Your task to perform on an android device: turn on notifications settings in the gmail app Image 0: 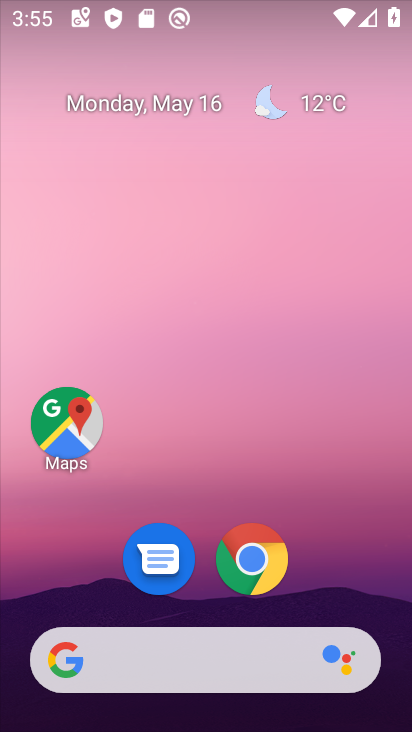
Step 0: drag from (395, 571) to (392, 347)
Your task to perform on an android device: turn on notifications settings in the gmail app Image 1: 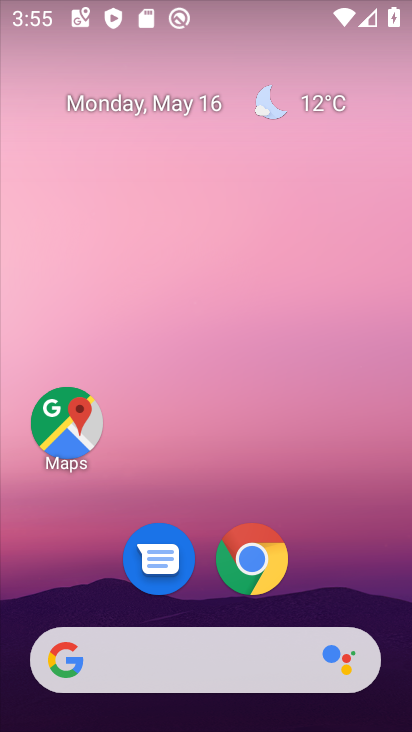
Step 1: drag from (345, 582) to (340, 275)
Your task to perform on an android device: turn on notifications settings in the gmail app Image 2: 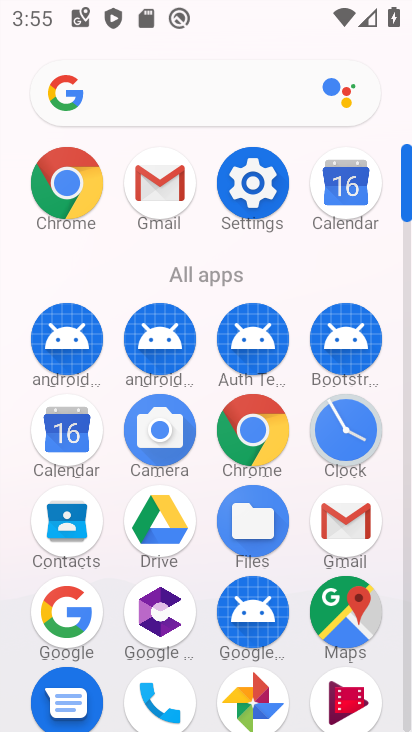
Step 2: click (241, 198)
Your task to perform on an android device: turn on notifications settings in the gmail app Image 3: 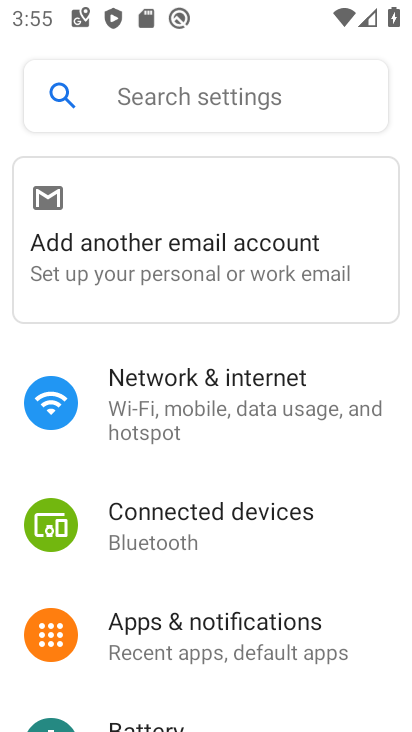
Step 3: click (199, 218)
Your task to perform on an android device: turn on notifications settings in the gmail app Image 4: 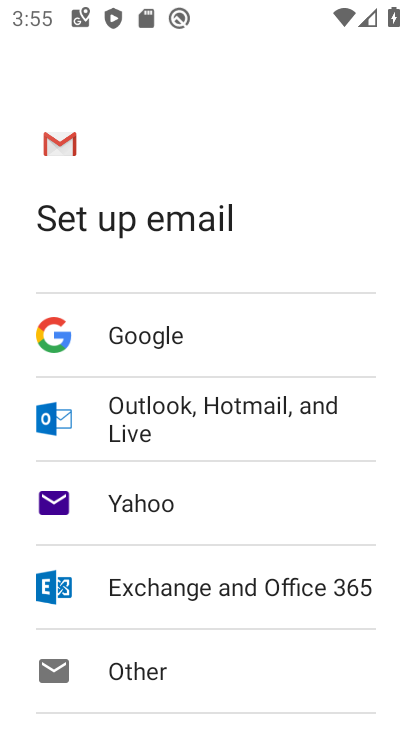
Step 4: press home button
Your task to perform on an android device: turn on notifications settings in the gmail app Image 5: 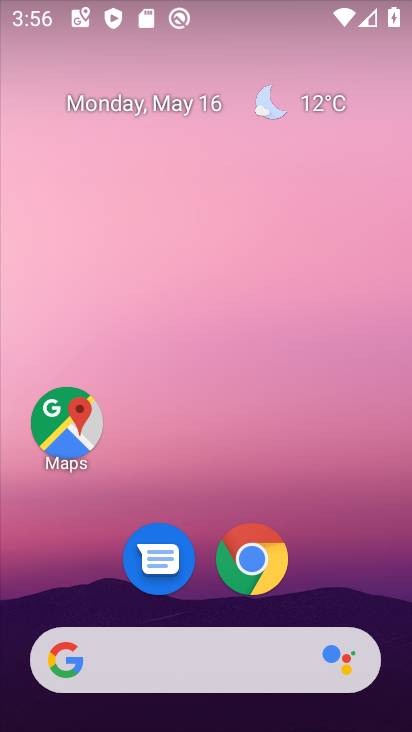
Step 5: drag from (351, 581) to (287, 164)
Your task to perform on an android device: turn on notifications settings in the gmail app Image 6: 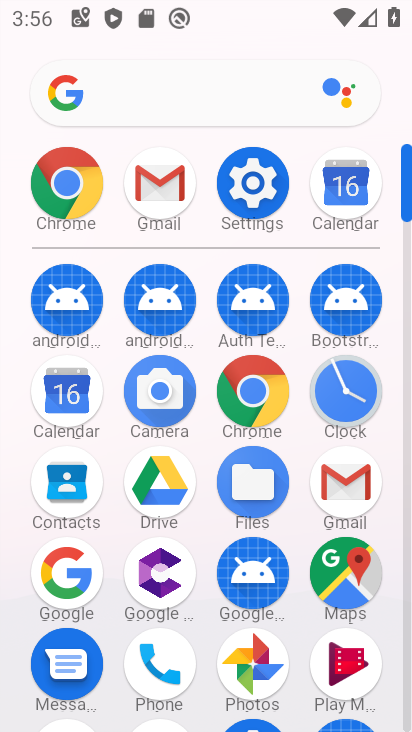
Step 6: click (169, 203)
Your task to perform on an android device: turn on notifications settings in the gmail app Image 7: 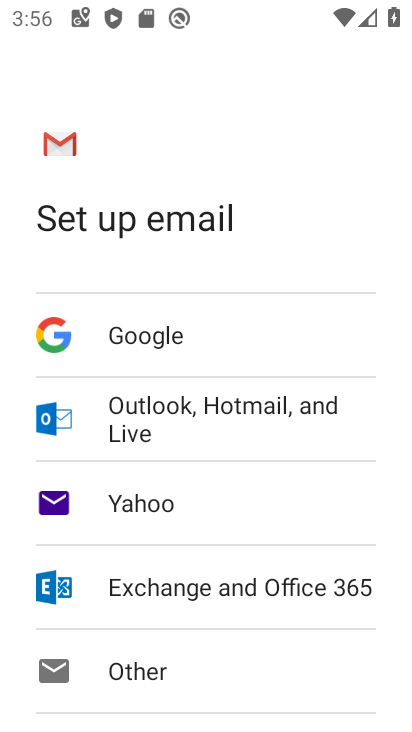
Step 7: press back button
Your task to perform on an android device: turn on notifications settings in the gmail app Image 8: 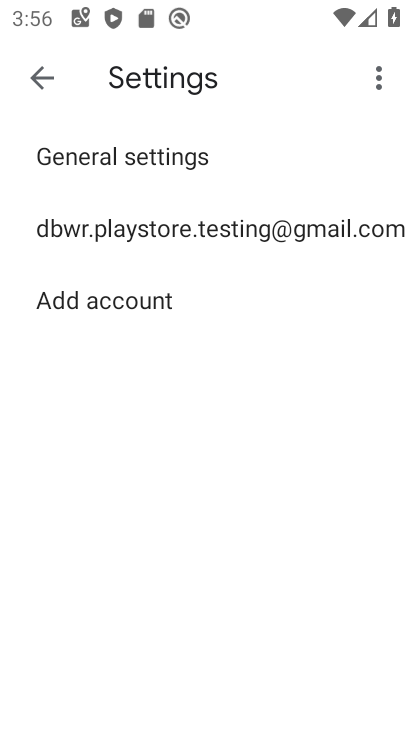
Step 8: click (115, 145)
Your task to perform on an android device: turn on notifications settings in the gmail app Image 9: 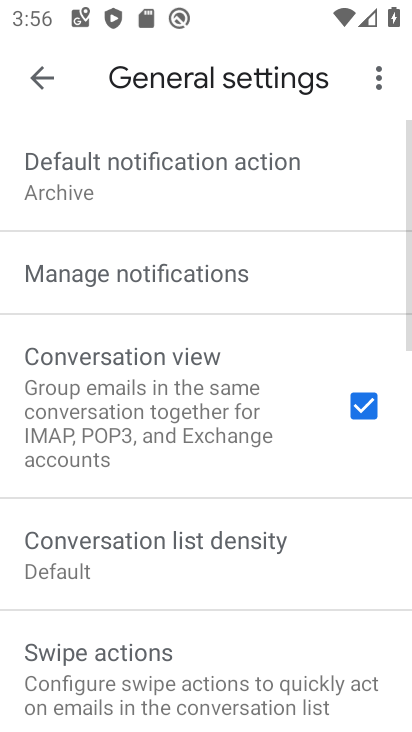
Step 9: click (110, 271)
Your task to perform on an android device: turn on notifications settings in the gmail app Image 10: 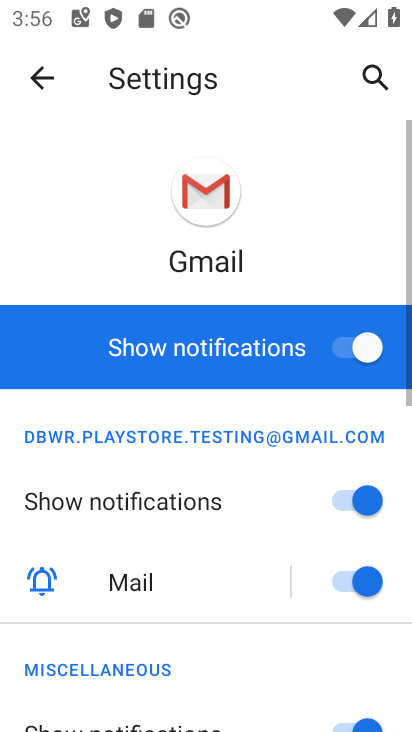
Step 10: click (305, 370)
Your task to perform on an android device: turn on notifications settings in the gmail app Image 11: 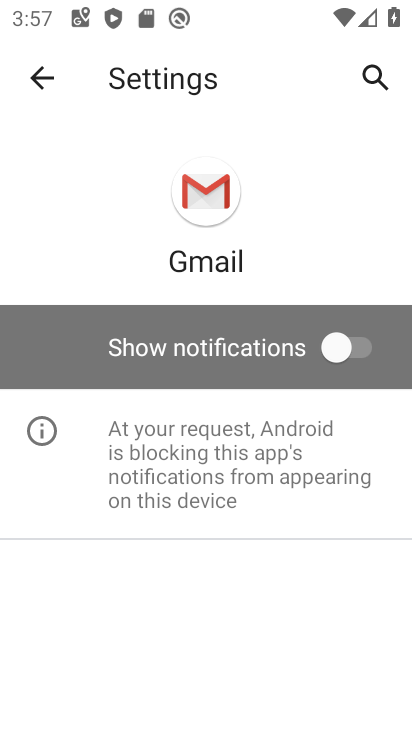
Step 11: click (332, 353)
Your task to perform on an android device: turn on notifications settings in the gmail app Image 12: 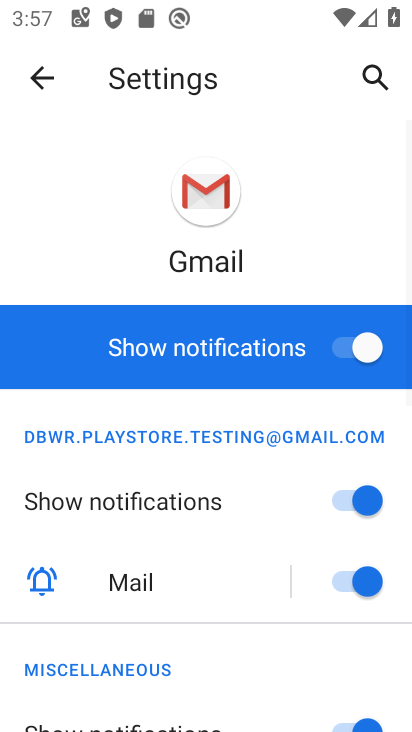
Step 12: task complete